Your task to perform on an android device: Open internet settings Image 0: 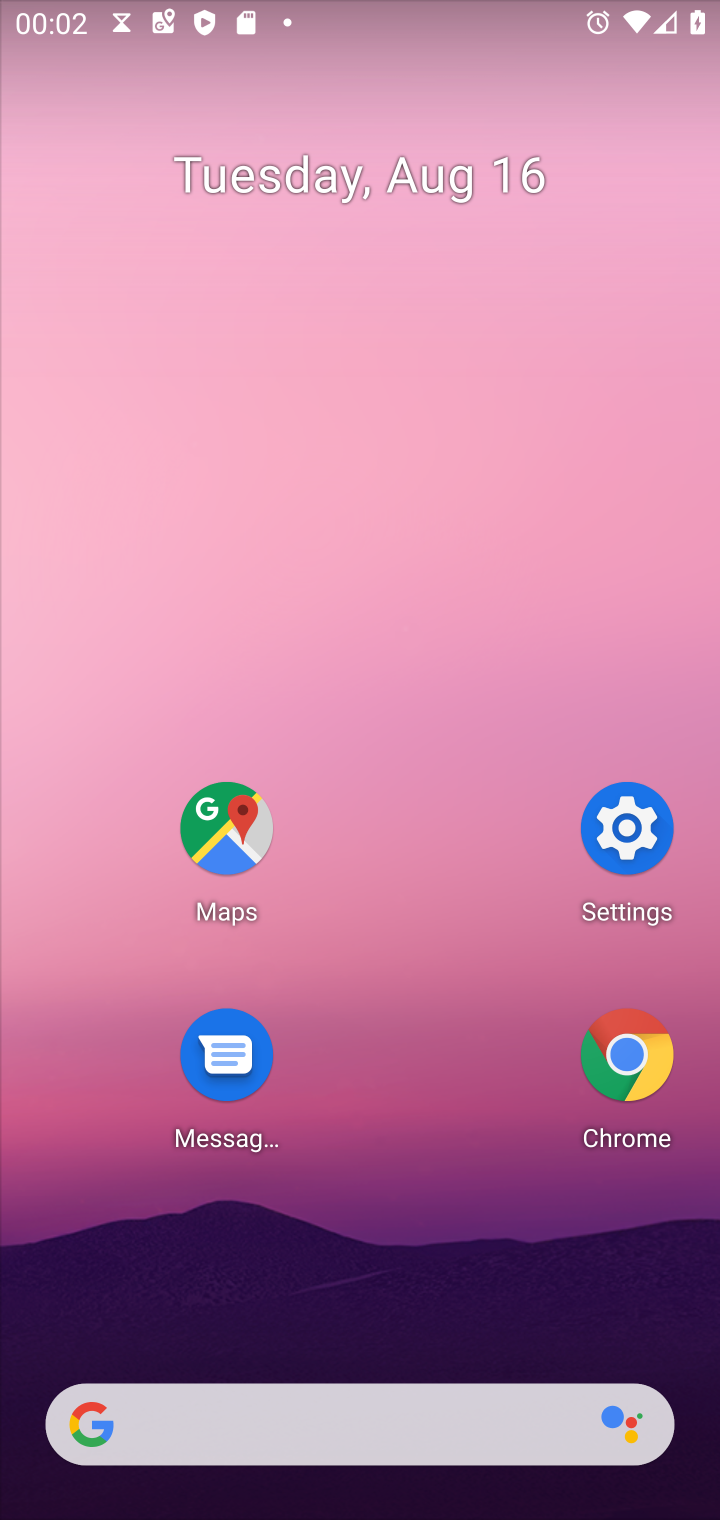
Step 0: press home button
Your task to perform on an android device: Open internet settings Image 1: 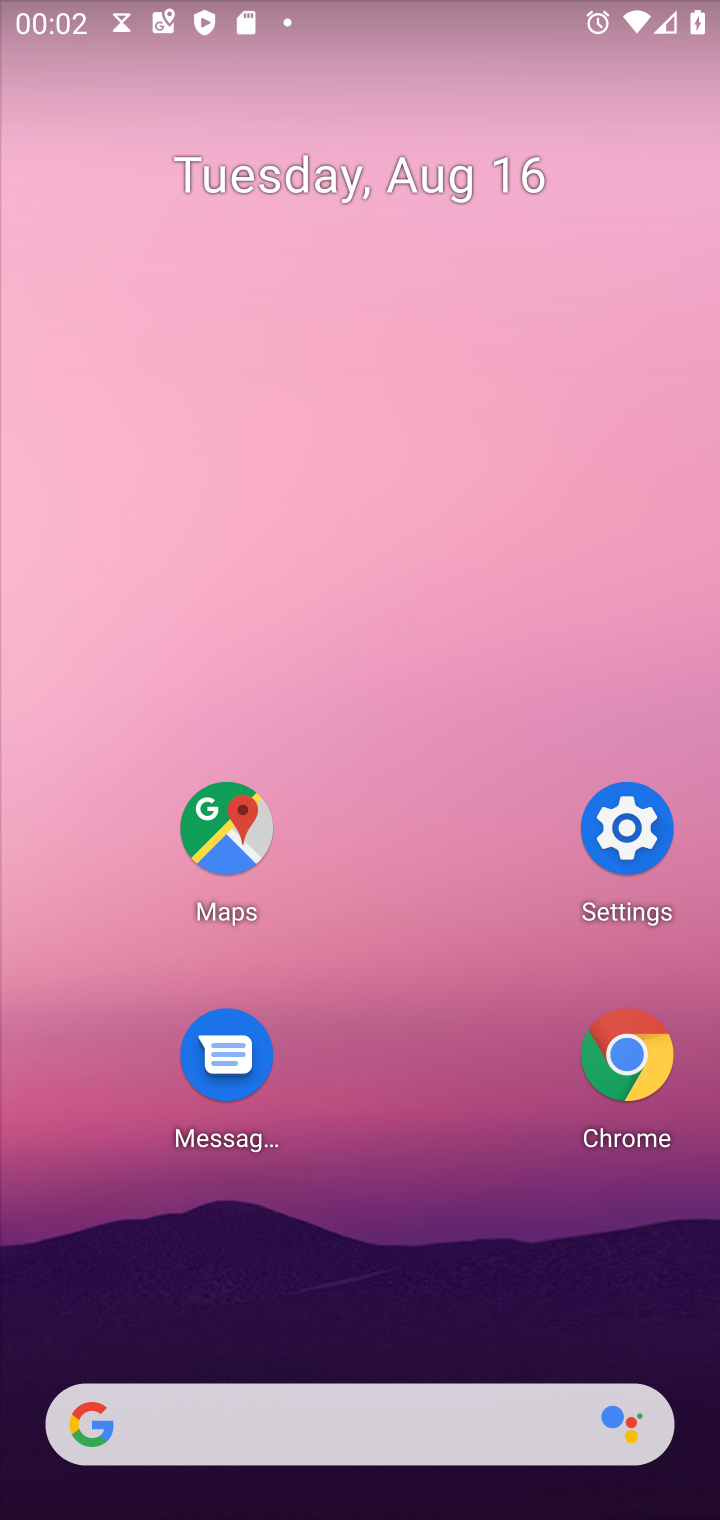
Step 1: click (629, 833)
Your task to perform on an android device: Open internet settings Image 2: 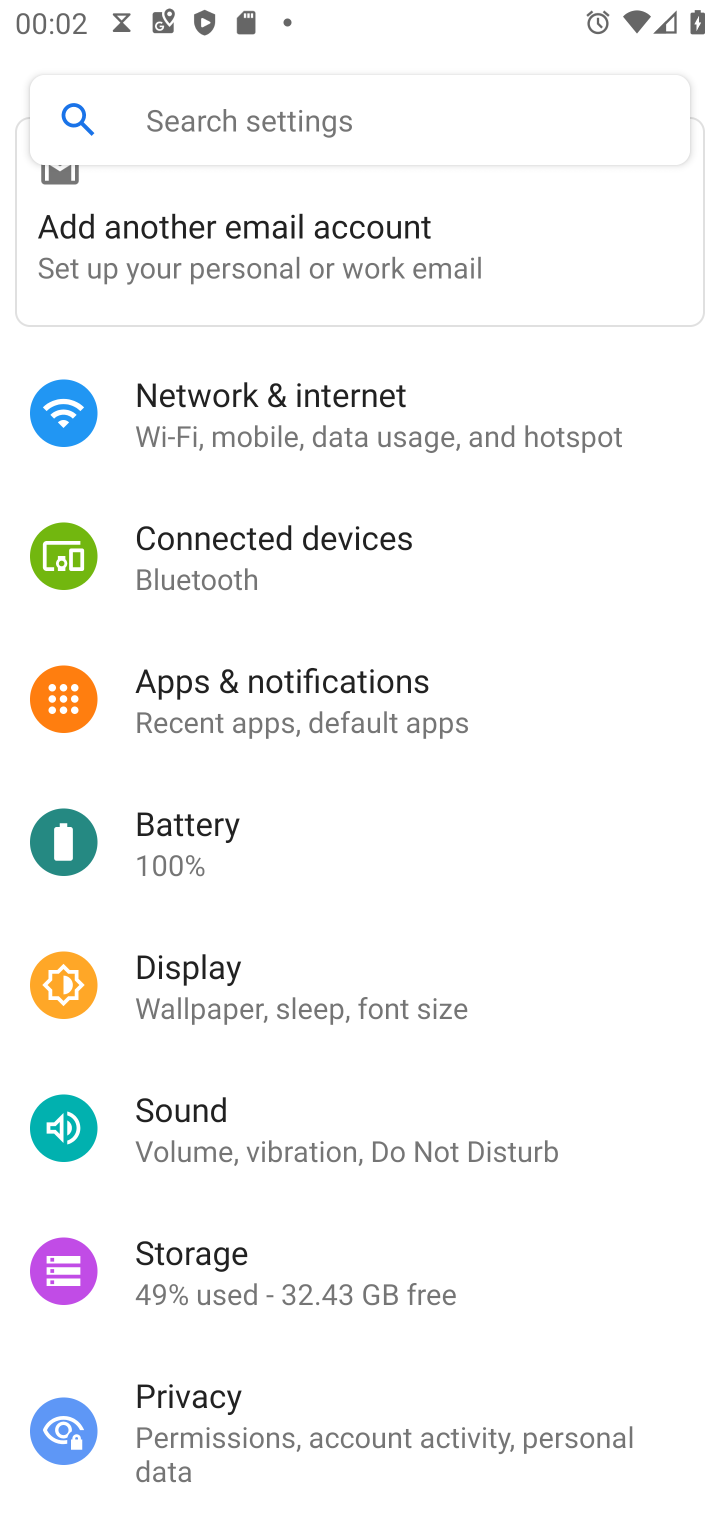
Step 2: click (629, 836)
Your task to perform on an android device: Open internet settings Image 3: 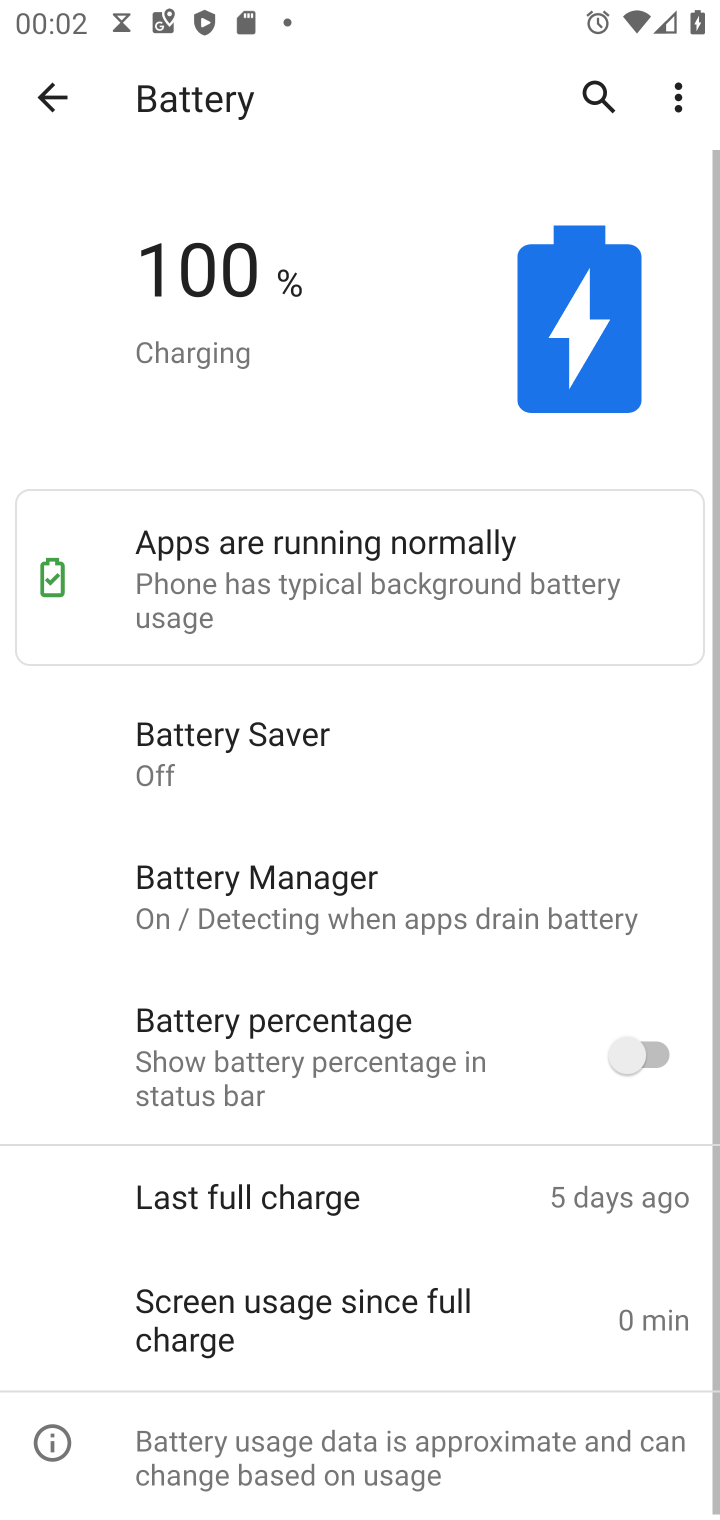
Step 3: press back button
Your task to perform on an android device: Open internet settings Image 4: 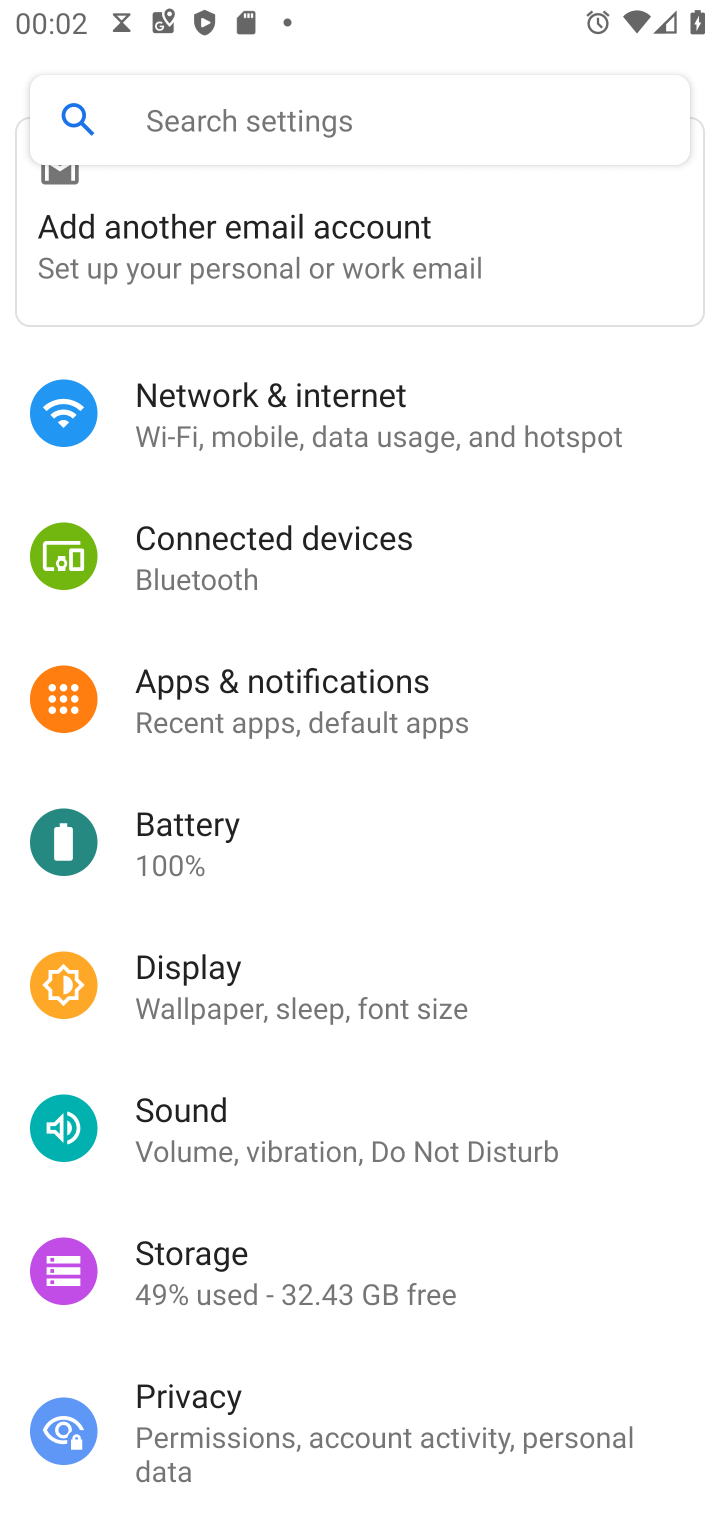
Step 4: click (320, 402)
Your task to perform on an android device: Open internet settings Image 5: 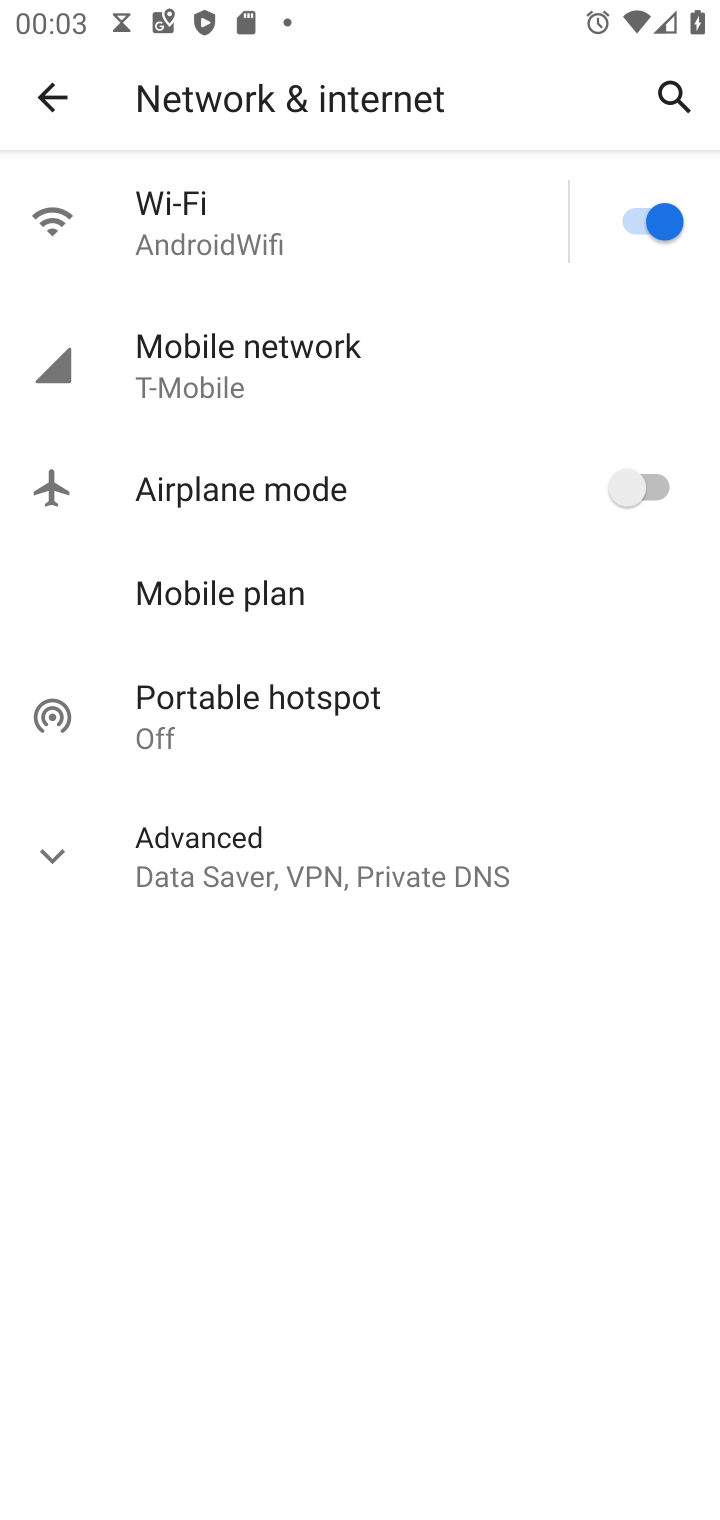
Step 5: task complete